Your task to perform on an android device: Open maps Image 0: 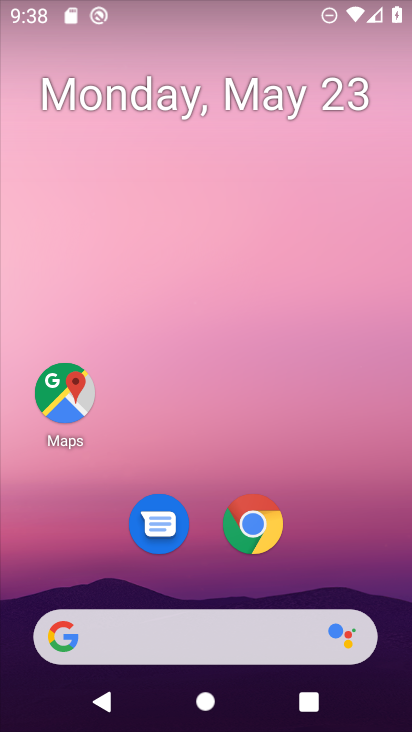
Step 0: click (68, 391)
Your task to perform on an android device: Open maps Image 1: 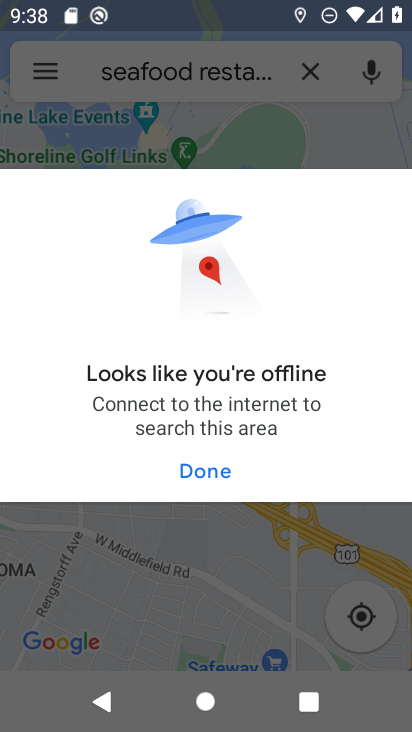
Step 1: click (207, 463)
Your task to perform on an android device: Open maps Image 2: 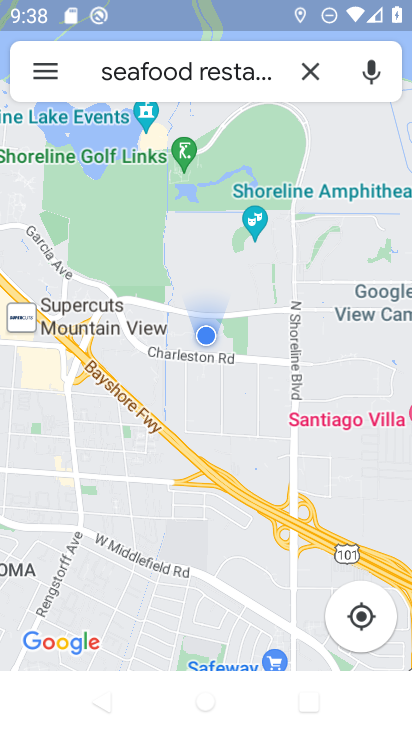
Step 2: click (307, 64)
Your task to perform on an android device: Open maps Image 3: 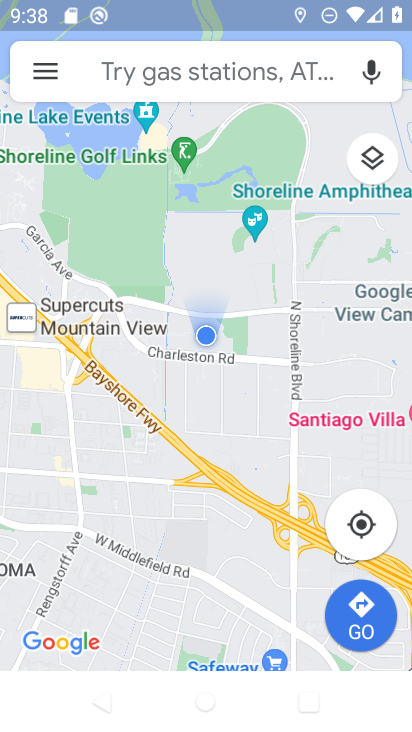
Step 3: task complete